Your task to perform on an android device: toggle airplane mode Image 0: 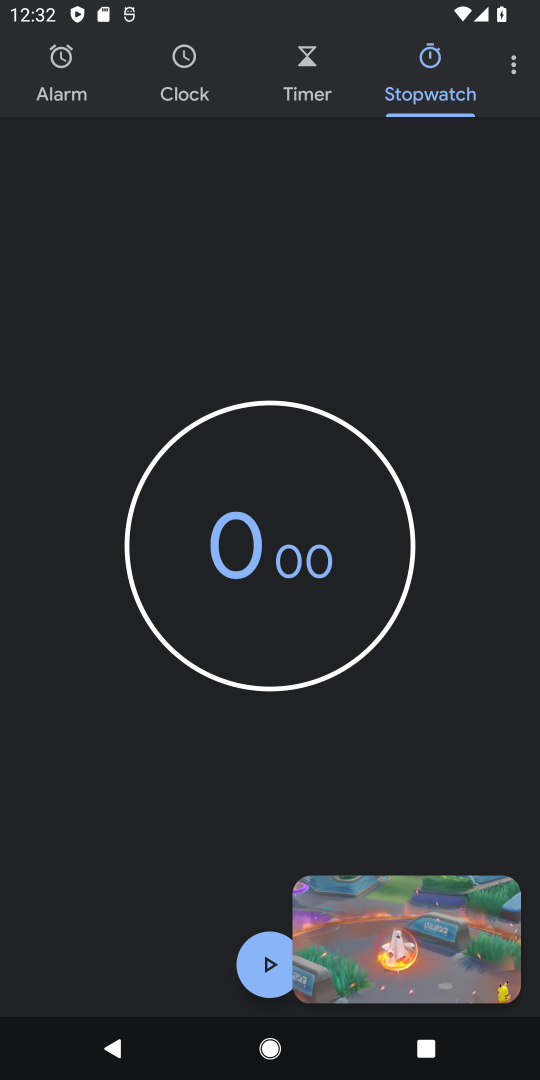
Step 0: press home button
Your task to perform on an android device: toggle airplane mode Image 1: 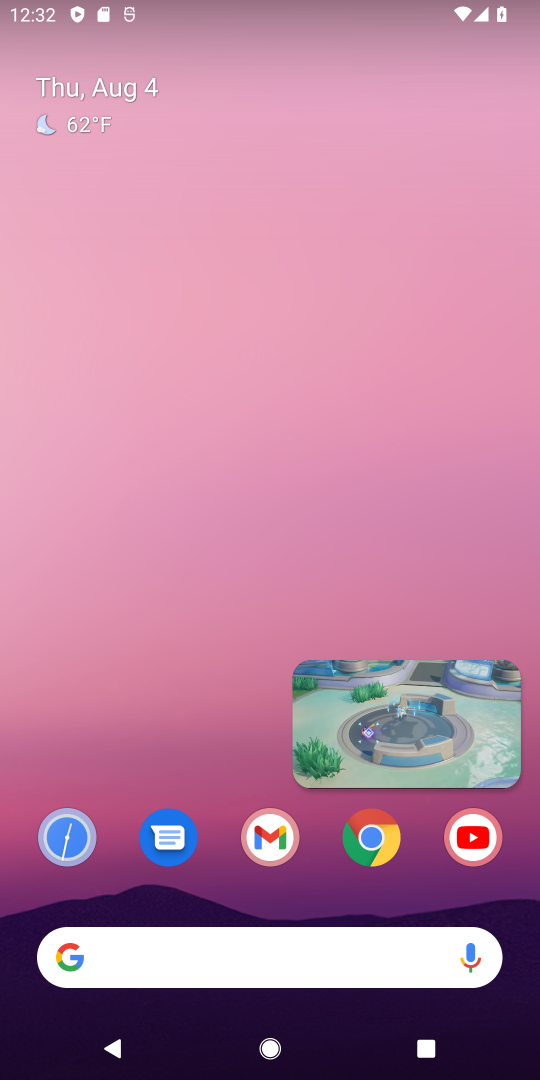
Step 1: drag from (225, 793) to (146, 76)
Your task to perform on an android device: toggle airplane mode Image 2: 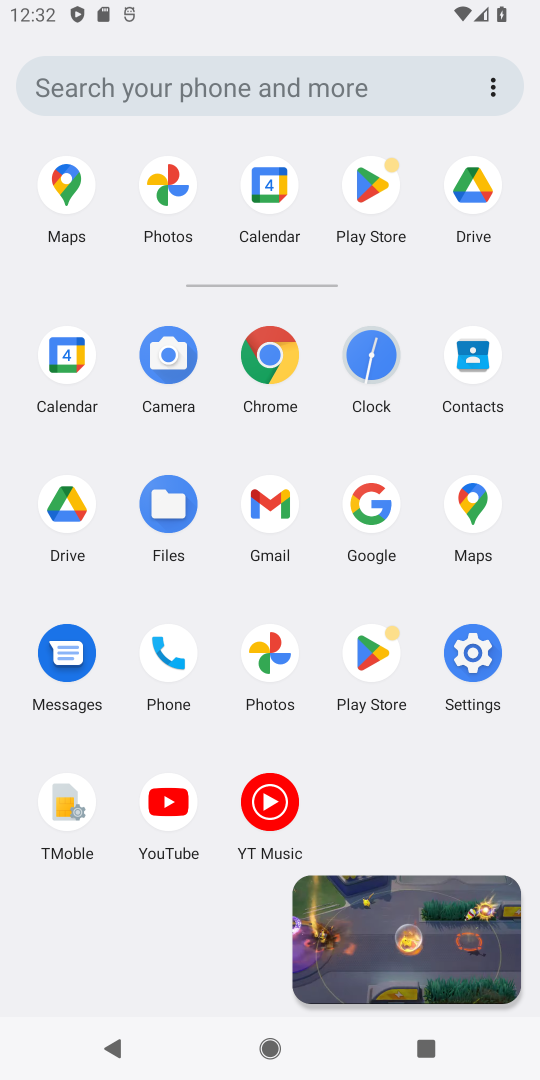
Step 2: click (482, 661)
Your task to perform on an android device: toggle airplane mode Image 3: 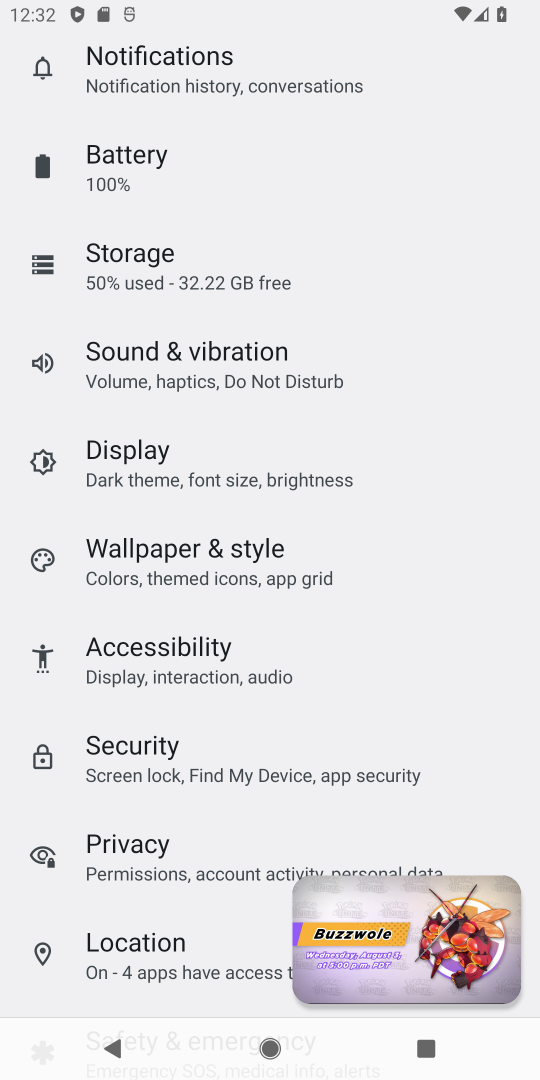
Step 3: drag from (160, 240) to (257, 651)
Your task to perform on an android device: toggle airplane mode Image 4: 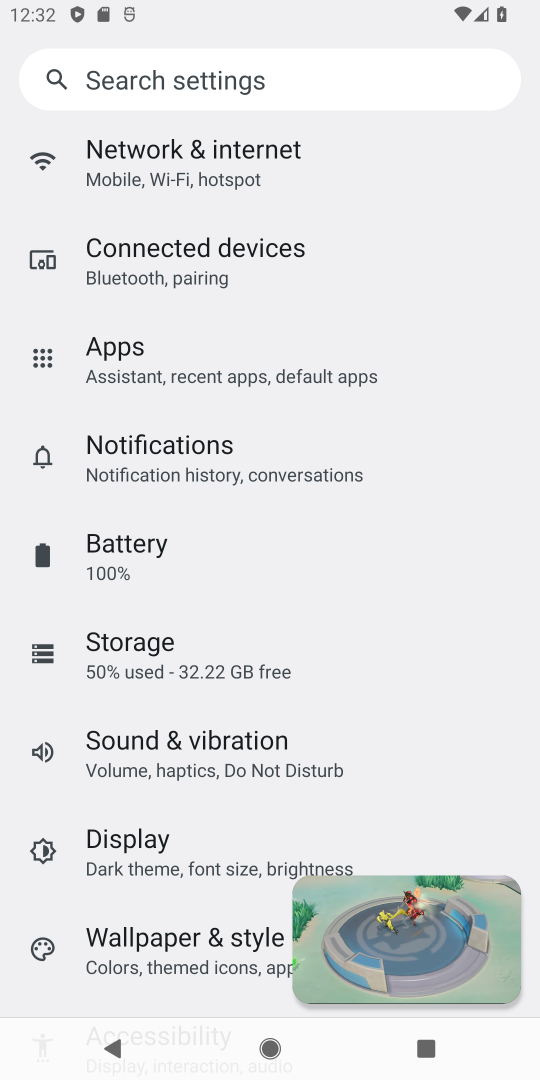
Step 4: drag from (322, 184) to (371, 451)
Your task to perform on an android device: toggle airplane mode Image 5: 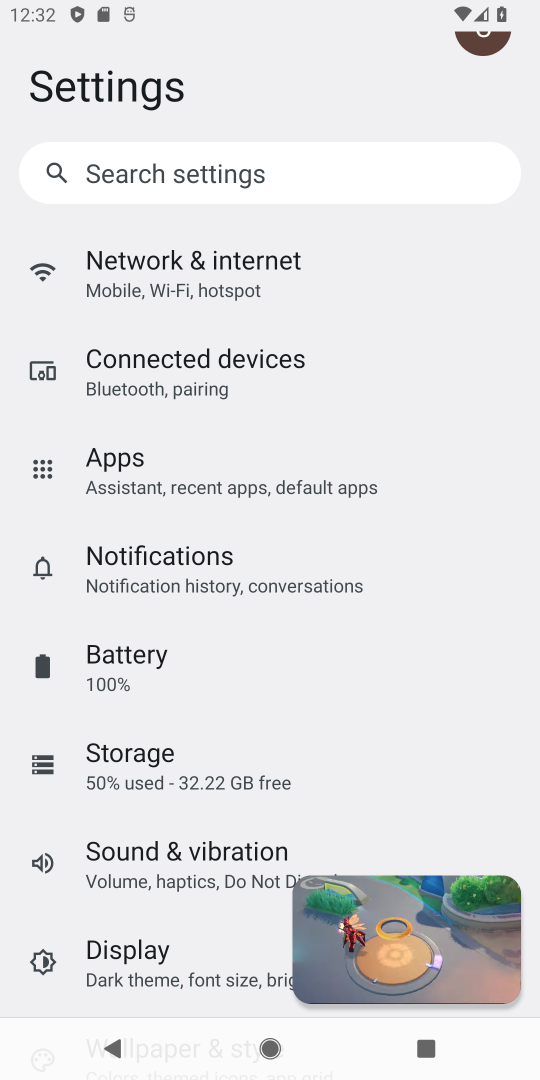
Step 5: click (254, 314)
Your task to perform on an android device: toggle airplane mode Image 6: 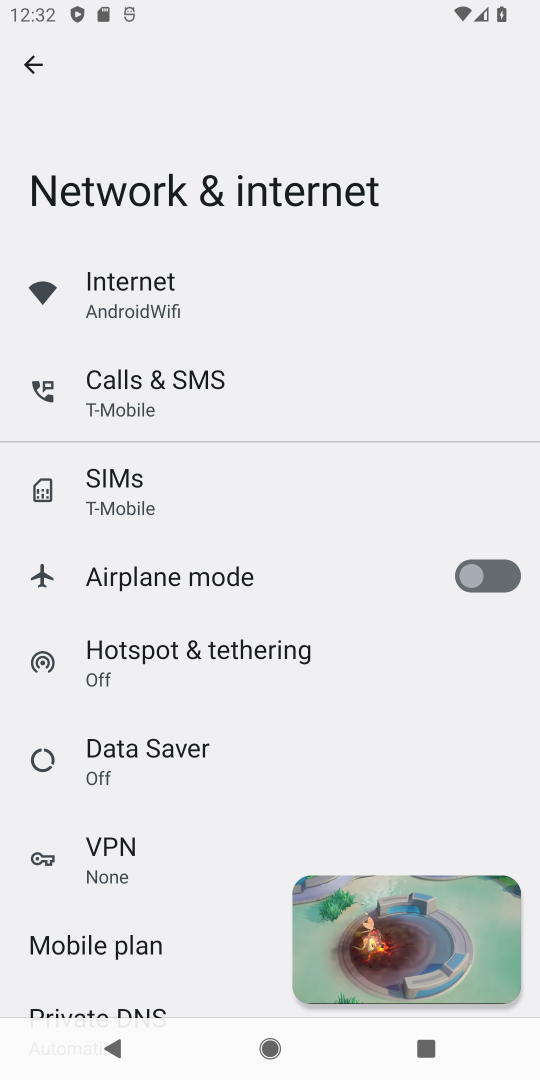
Step 6: click (484, 572)
Your task to perform on an android device: toggle airplane mode Image 7: 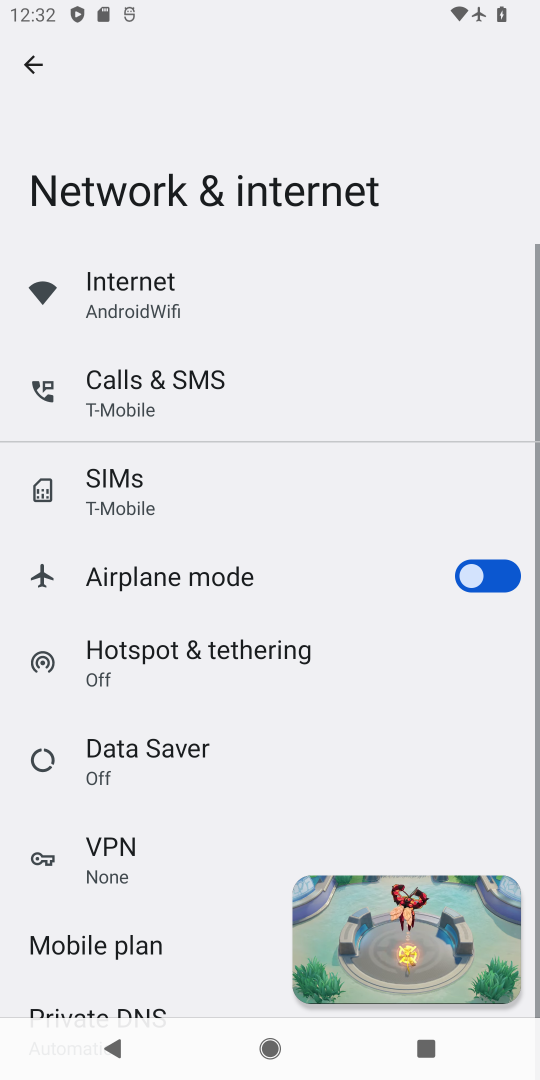
Step 7: task complete